Your task to perform on an android device: turn on showing notifications on the lock screen Image 0: 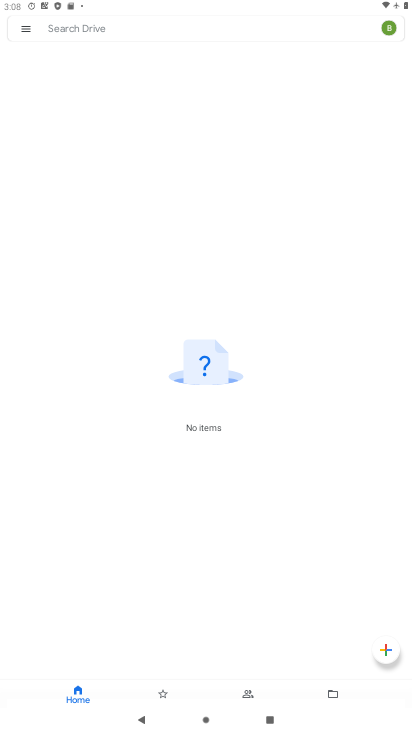
Step 0: press home button
Your task to perform on an android device: turn on showing notifications on the lock screen Image 1: 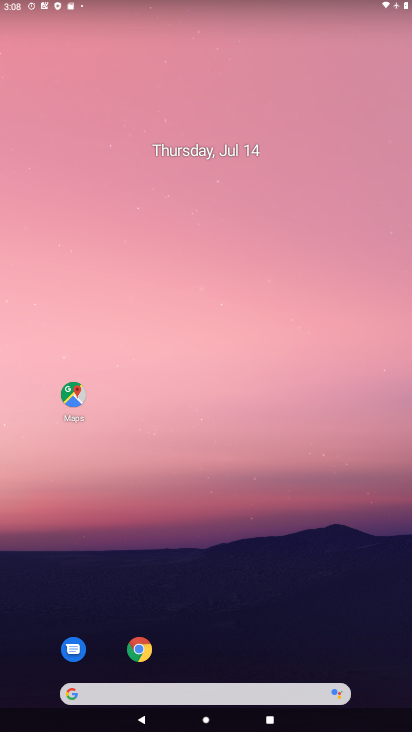
Step 1: drag from (182, 589) to (189, 1)
Your task to perform on an android device: turn on showing notifications on the lock screen Image 2: 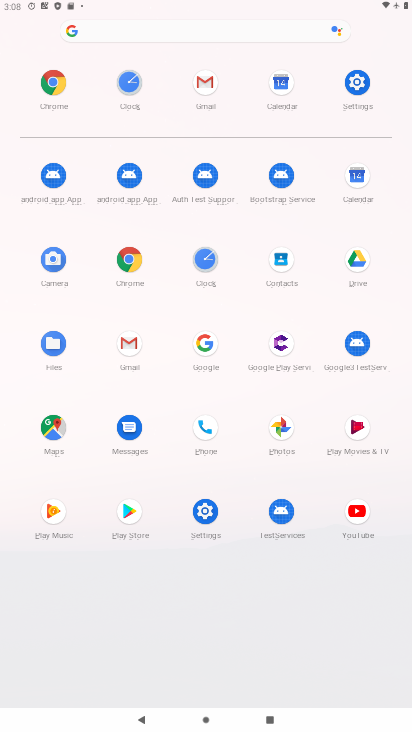
Step 2: click (206, 521)
Your task to perform on an android device: turn on showing notifications on the lock screen Image 3: 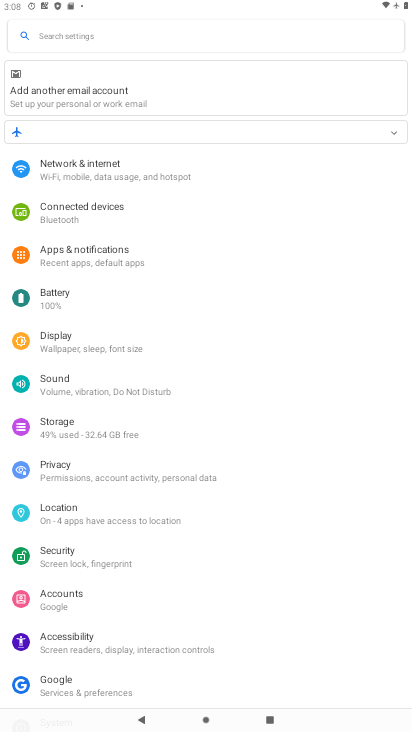
Step 3: click (117, 261)
Your task to perform on an android device: turn on showing notifications on the lock screen Image 4: 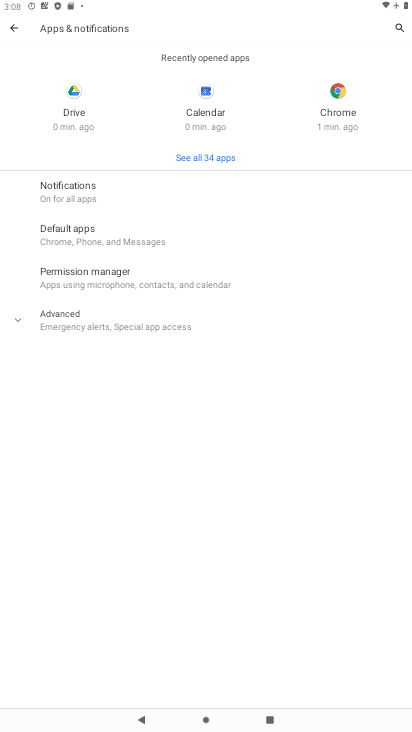
Step 4: click (85, 190)
Your task to perform on an android device: turn on showing notifications on the lock screen Image 5: 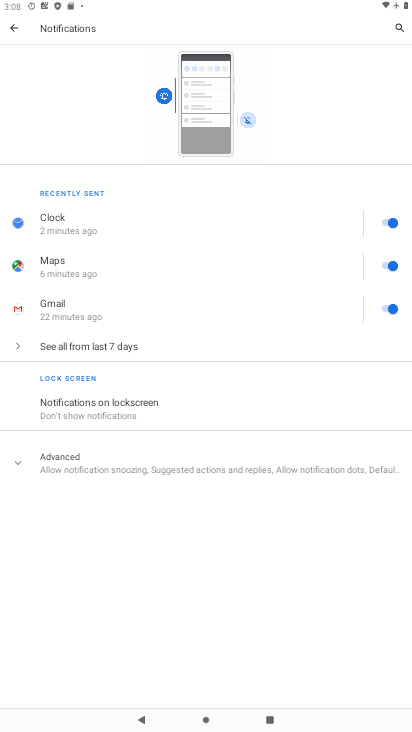
Step 5: click (131, 413)
Your task to perform on an android device: turn on showing notifications on the lock screen Image 6: 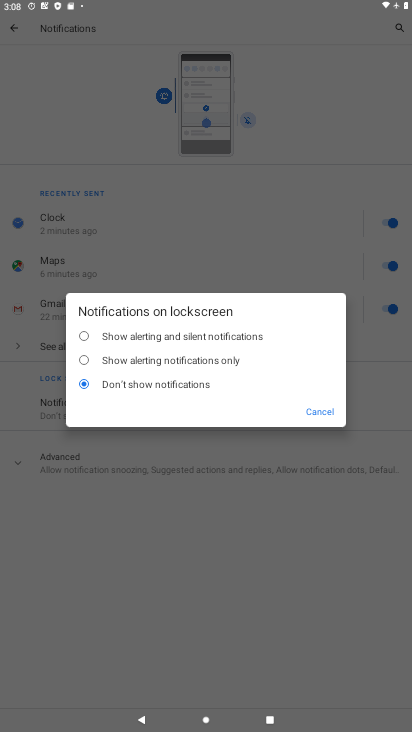
Step 6: click (163, 338)
Your task to perform on an android device: turn on showing notifications on the lock screen Image 7: 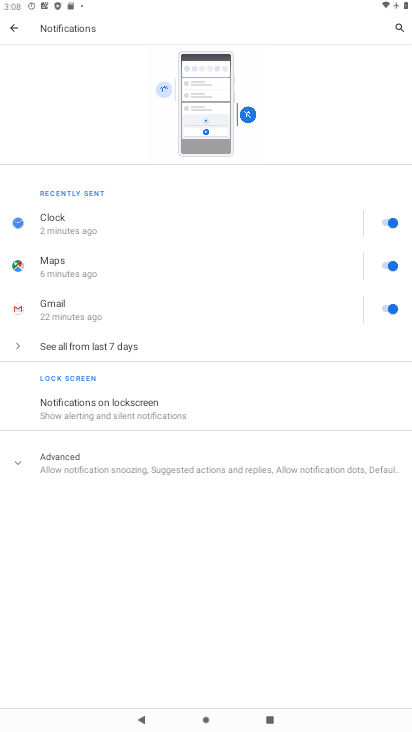
Step 7: task complete